Your task to perform on an android device: Open the map Image 0: 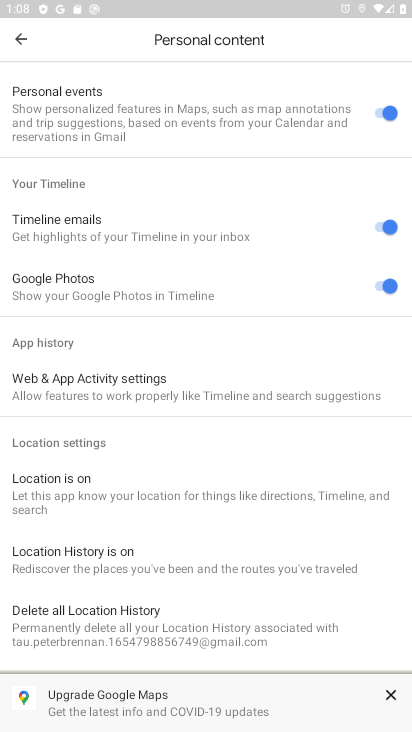
Step 0: press home button
Your task to perform on an android device: Open the map Image 1: 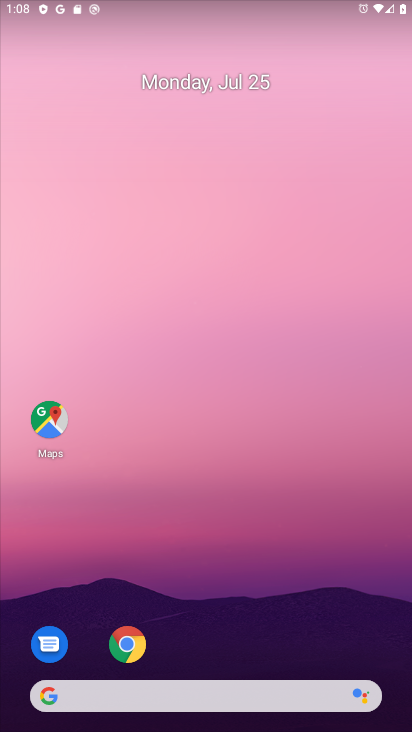
Step 1: click (50, 423)
Your task to perform on an android device: Open the map Image 2: 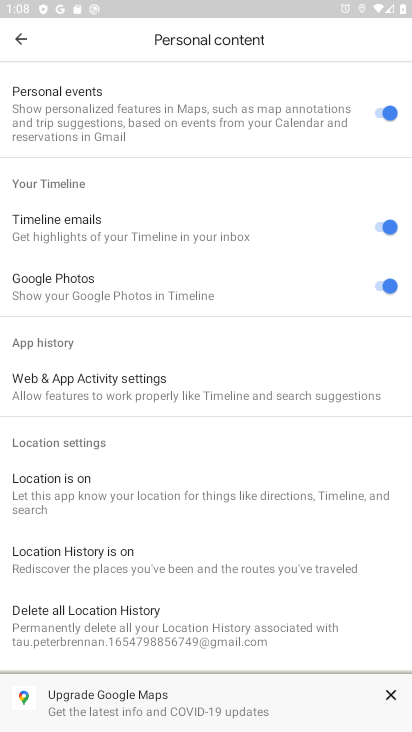
Step 2: click (17, 31)
Your task to perform on an android device: Open the map Image 3: 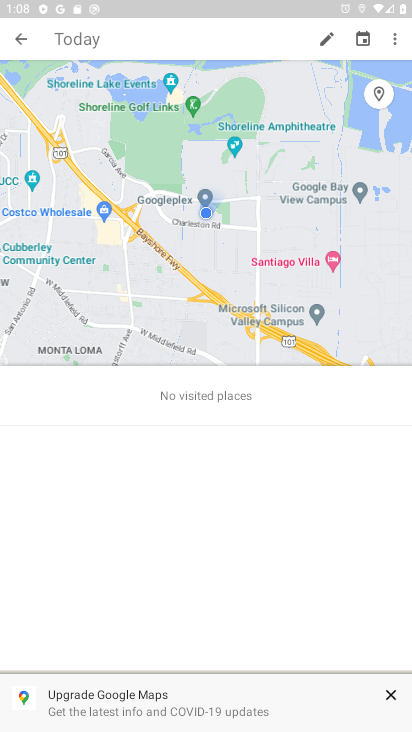
Step 3: click (26, 49)
Your task to perform on an android device: Open the map Image 4: 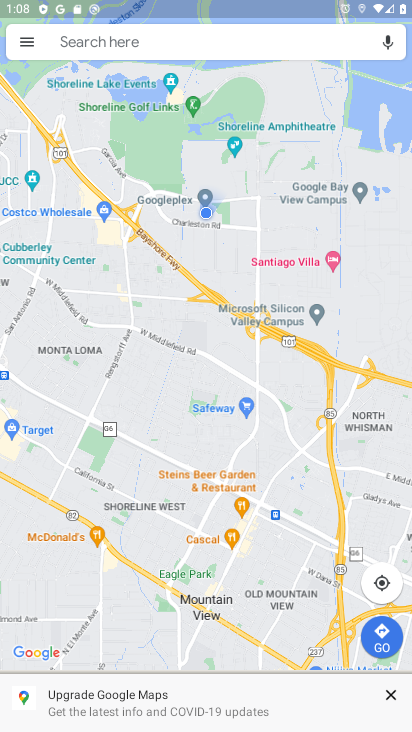
Step 4: task complete